Your task to perform on an android device: create a new album in the google photos Image 0: 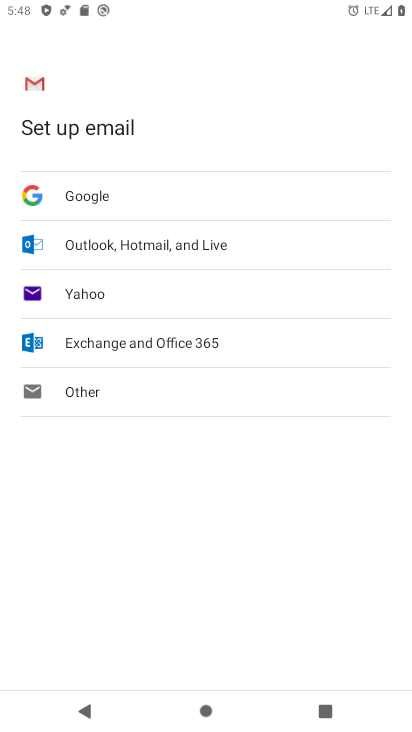
Step 0: press home button
Your task to perform on an android device: create a new album in the google photos Image 1: 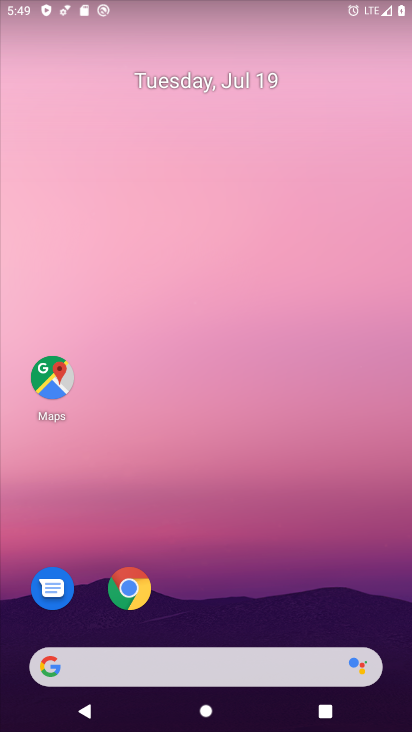
Step 1: drag from (228, 615) to (276, 5)
Your task to perform on an android device: create a new album in the google photos Image 2: 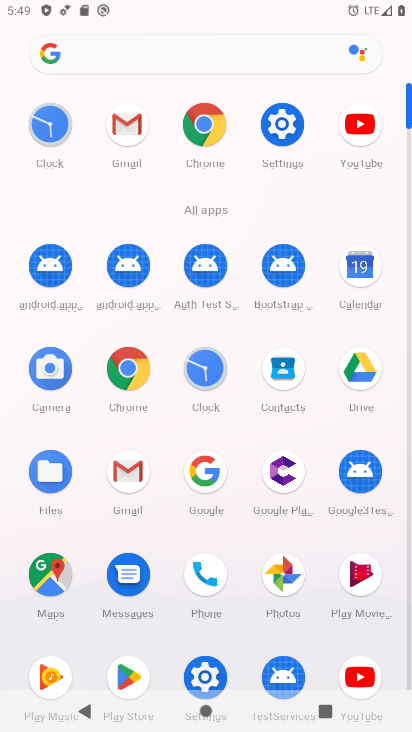
Step 2: click (274, 590)
Your task to perform on an android device: create a new album in the google photos Image 3: 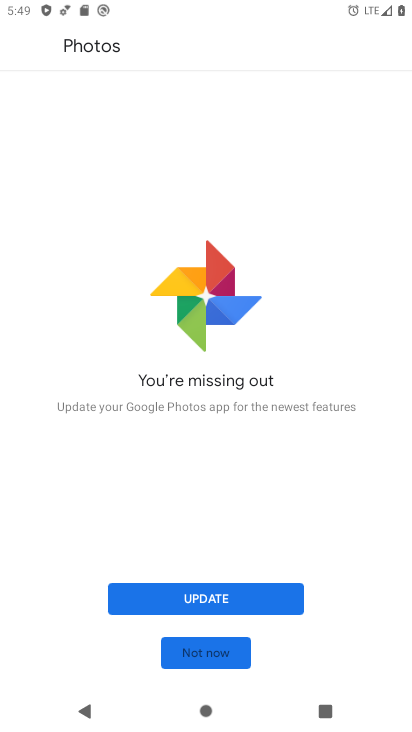
Step 3: click (232, 665)
Your task to perform on an android device: create a new album in the google photos Image 4: 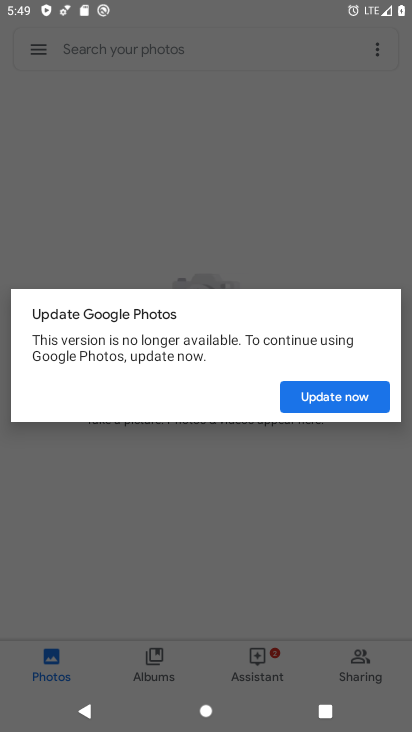
Step 4: click (342, 402)
Your task to perform on an android device: create a new album in the google photos Image 5: 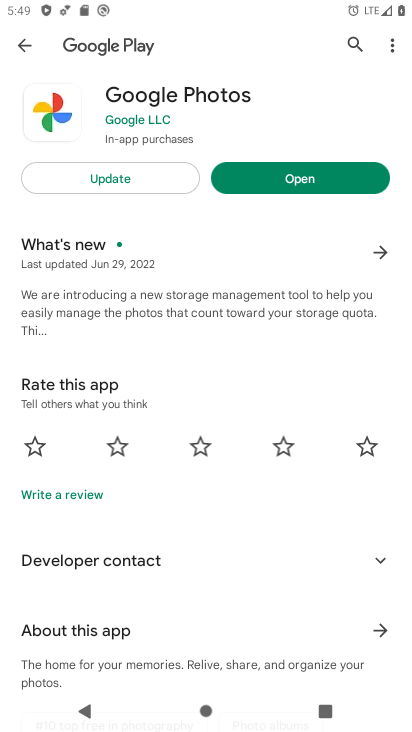
Step 5: click (267, 172)
Your task to perform on an android device: create a new album in the google photos Image 6: 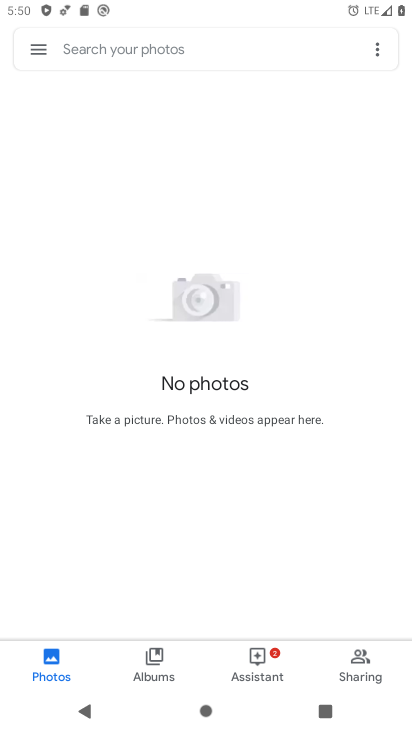
Step 6: task complete